Your task to perform on an android device: add a contact Image 0: 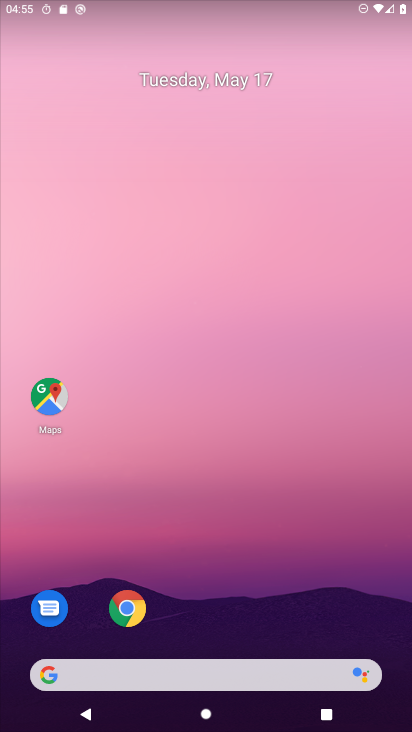
Step 0: drag from (174, 654) to (192, 351)
Your task to perform on an android device: add a contact Image 1: 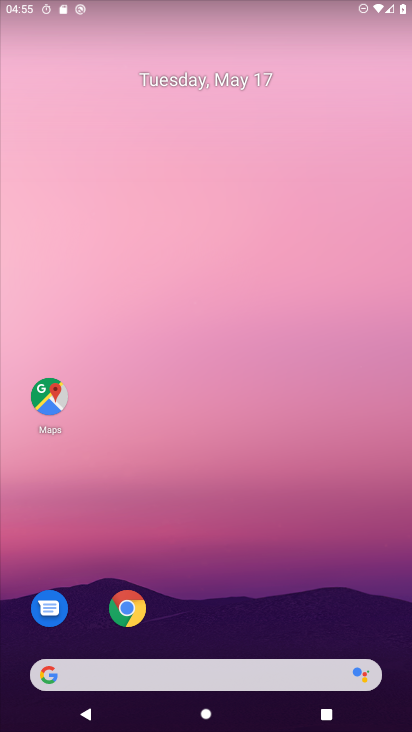
Step 1: drag from (286, 594) to (290, 260)
Your task to perform on an android device: add a contact Image 2: 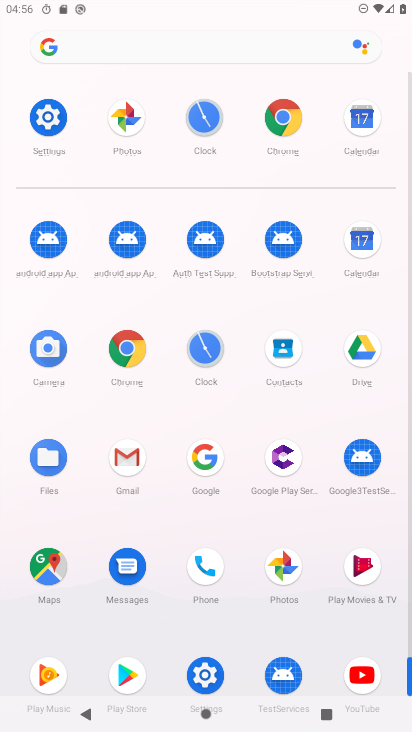
Step 2: drag from (224, 624) to (242, 282)
Your task to perform on an android device: add a contact Image 3: 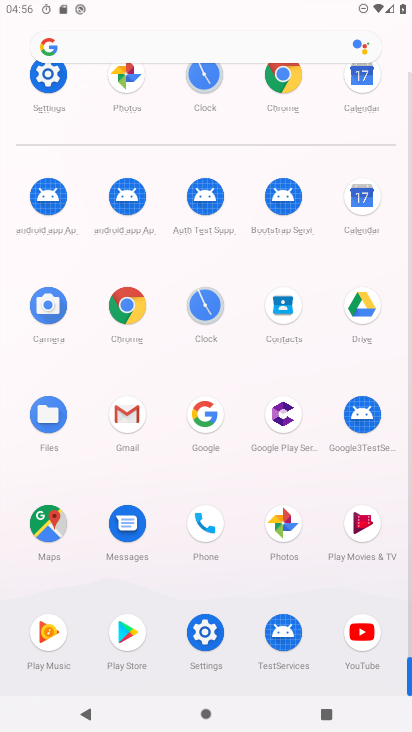
Step 3: click (273, 309)
Your task to perform on an android device: add a contact Image 4: 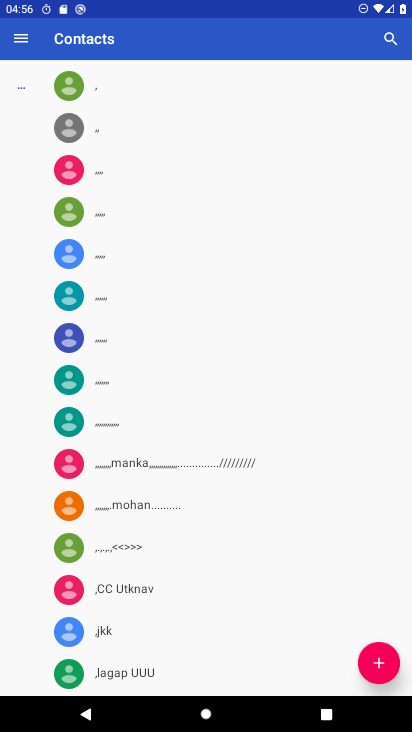
Step 4: click (382, 662)
Your task to perform on an android device: add a contact Image 5: 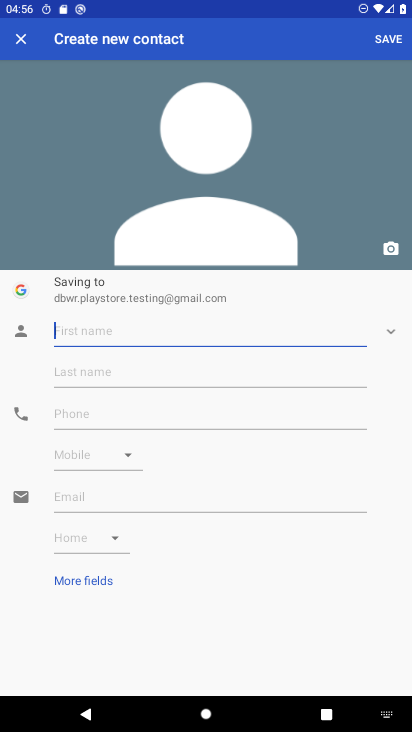
Step 5: click (78, 336)
Your task to perform on an android device: add a contact Image 6: 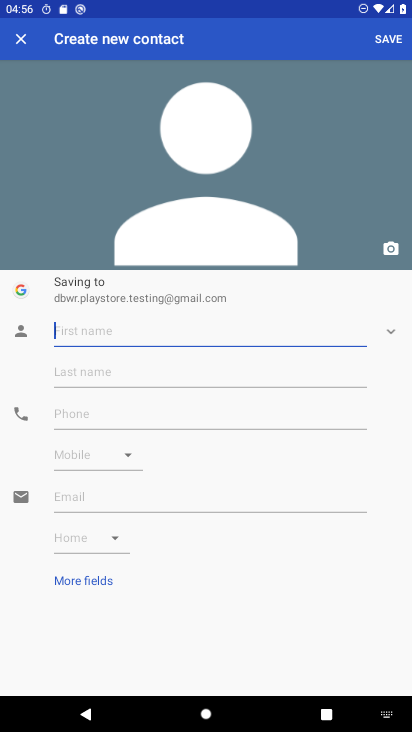
Step 6: type "jully"
Your task to perform on an android device: add a contact Image 7: 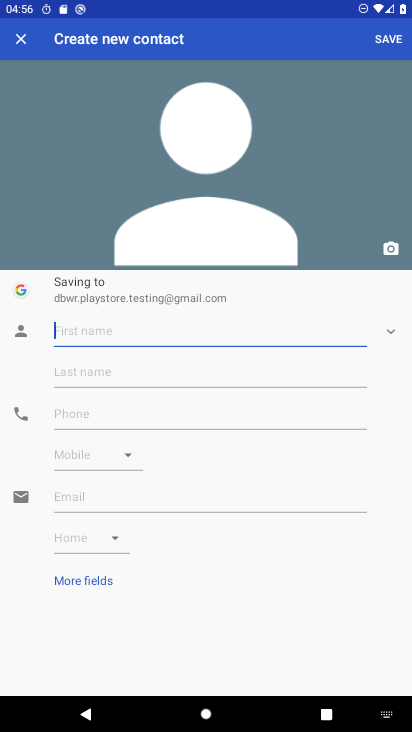
Step 7: click (122, 371)
Your task to perform on an android device: add a contact Image 8: 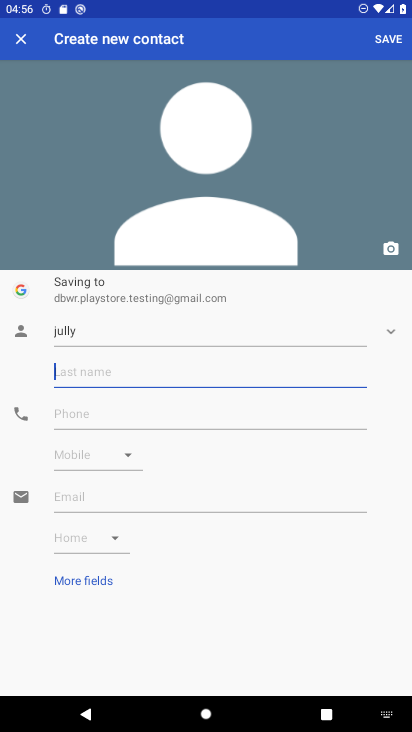
Step 8: type "jali"
Your task to perform on an android device: add a contact Image 9: 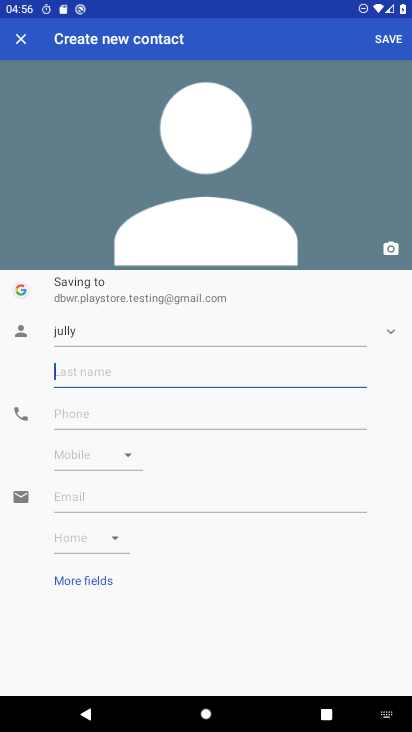
Step 9: click (95, 421)
Your task to perform on an android device: add a contact Image 10: 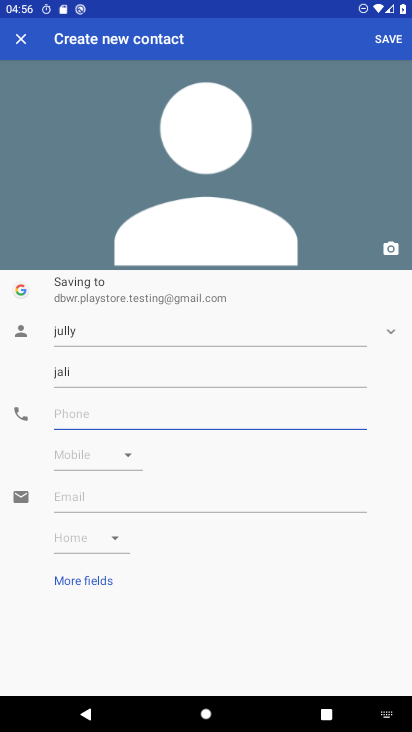
Step 10: type "7676767678"
Your task to perform on an android device: add a contact Image 11: 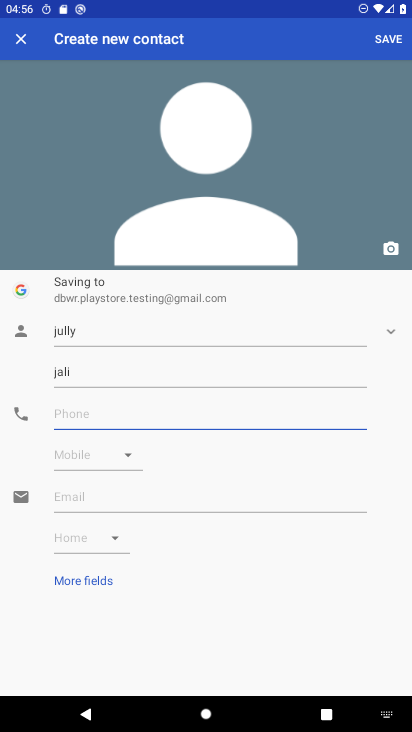
Step 11: click (124, 454)
Your task to perform on an android device: add a contact Image 12: 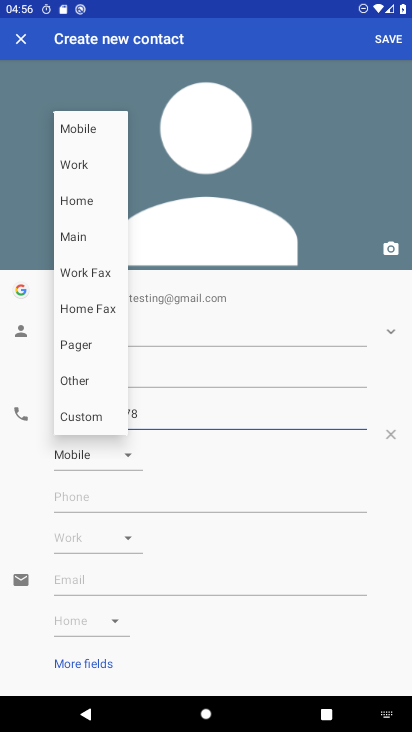
Step 12: click (79, 123)
Your task to perform on an android device: add a contact Image 13: 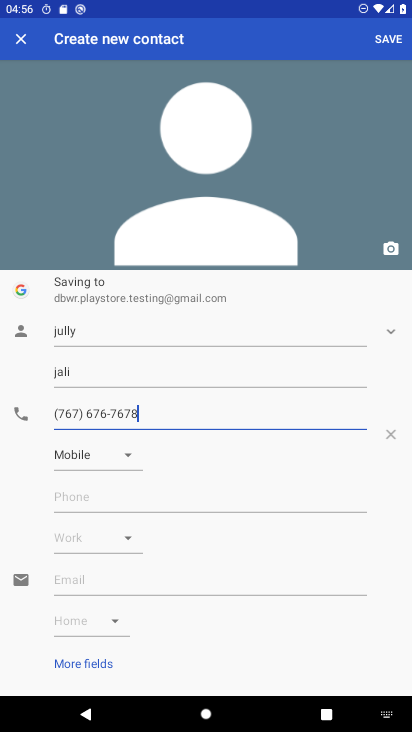
Step 13: click (373, 34)
Your task to perform on an android device: add a contact Image 14: 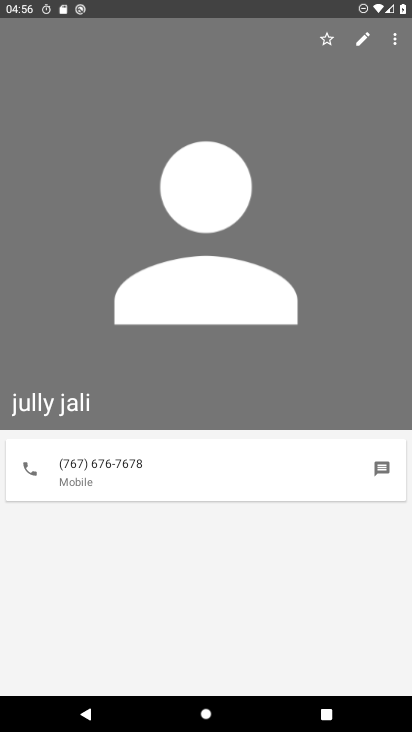
Step 14: task complete